Your task to perform on an android device: View the shopping cart on ebay. Search for "usb-c to usb-a" on ebay, select the first entry, and add it to the cart. Image 0: 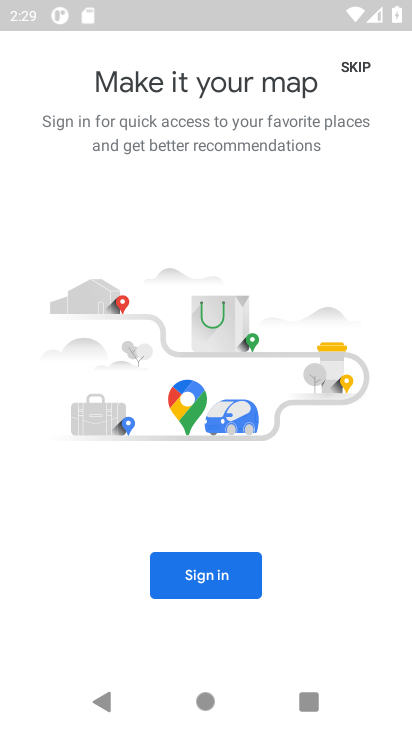
Step 0: press home button
Your task to perform on an android device: View the shopping cart on ebay. Search for "usb-c to usb-a" on ebay, select the first entry, and add it to the cart. Image 1: 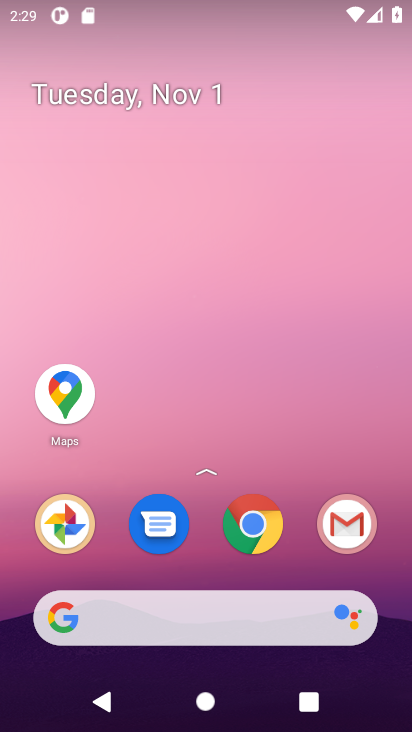
Step 1: click (253, 525)
Your task to perform on an android device: View the shopping cart on ebay. Search for "usb-c to usb-a" on ebay, select the first entry, and add it to the cart. Image 2: 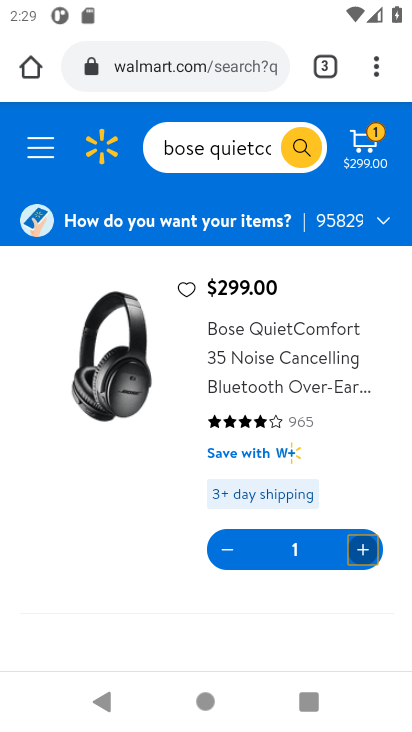
Step 2: click (182, 42)
Your task to perform on an android device: View the shopping cart on ebay. Search for "usb-c to usb-a" on ebay, select the first entry, and add it to the cart. Image 3: 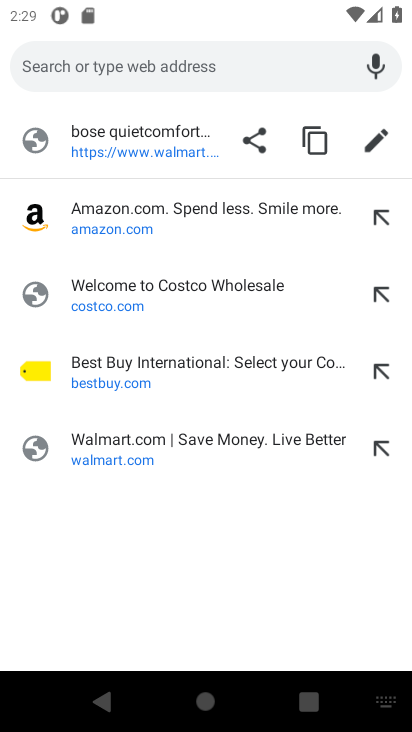
Step 3: type "ebay"
Your task to perform on an android device: View the shopping cart on ebay. Search for "usb-c to usb-a" on ebay, select the first entry, and add it to the cart. Image 4: 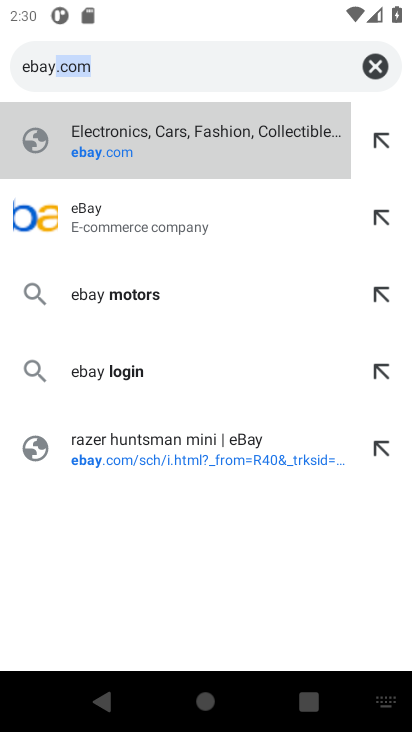
Step 4: click (95, 216)
Your task to perform on an android device: View the shopping cart on ebay. Search for "usb-c to usb-a" on ebay, select the first entry, and add it to the cart. Image 5: 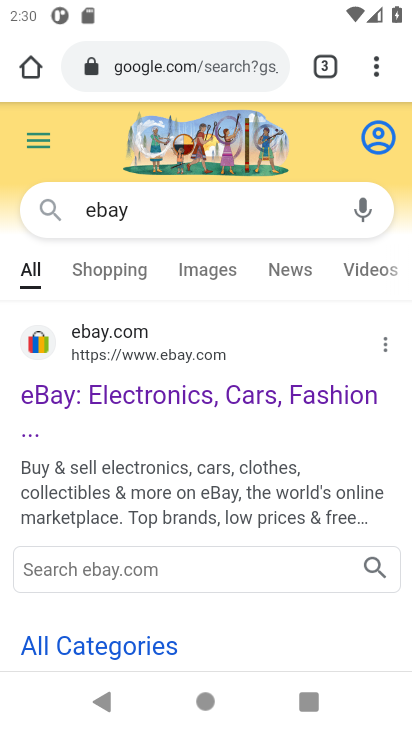
Step 5: click (37, 391)
Your task to perform on an android device: View the shopping cart on ebay. Search for "usb-c to usb-a" on ebay, select the first entry, and add it to the cart. Image 6: 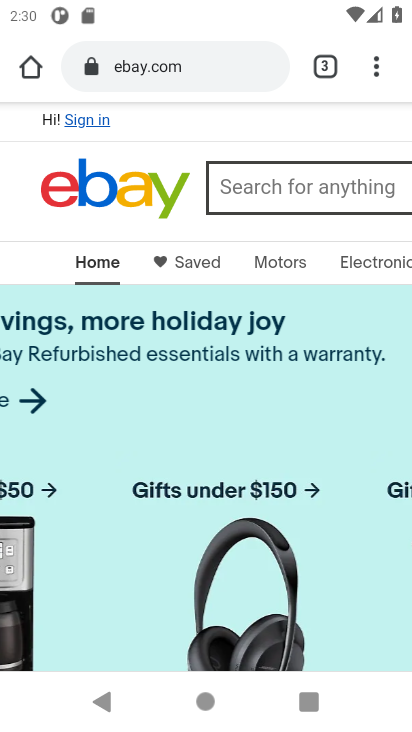
Step 6: drag from (398, 232) to (64, 221)
Your task to perform on an android device: View the shopping cart on ebay. Search for "usb-c to usb-a" on ebay, select the first entry, and add it to the cart. Image 7: 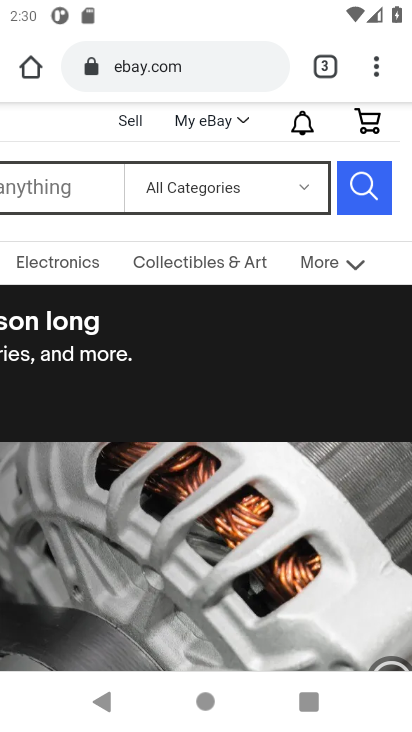
Step 7: drag from (397, 230) to (291, 225)
Your task to perform on an android device: View the shopping cart on ebay. Search for "usb-c to usb-a" on ebay, select the first entry, and add it to the cart. Image 8: 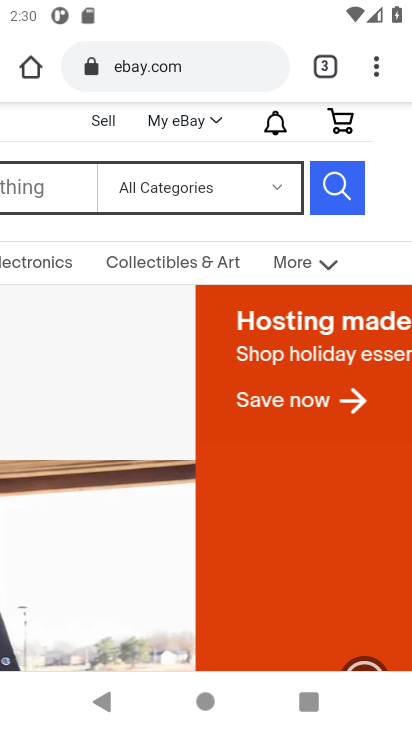
Step 8: click (343, 120)
Your task to perform on an android device: View the shopping cart on ebay. Search for "usb-c to usb-a" on ebay, select the first entry, and add it to the cart. Image 9: 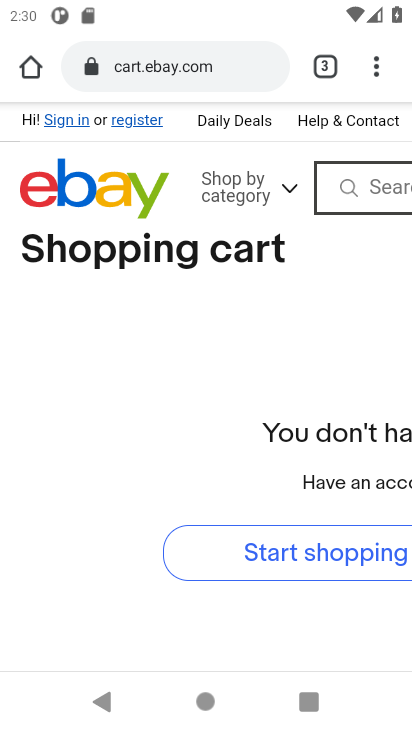
Step 9: drag from (382, 381) to (32, 367)
Your task to perform on an android device: View the shopping cart on ebay. Search for "usb-c to usb-a" on ebay, select the first entry, and add it to the cart. Image 10: 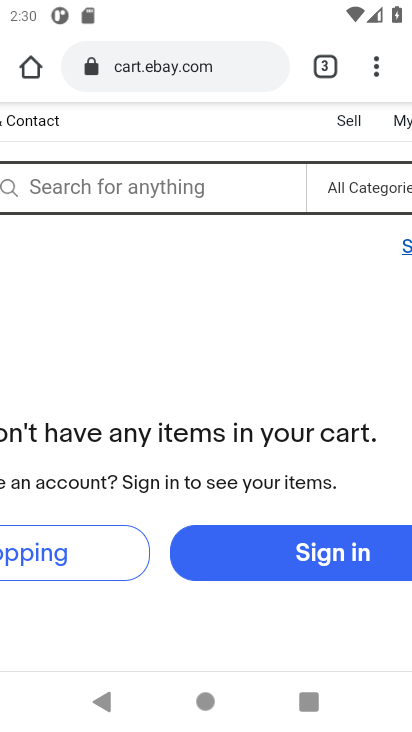
Step 10: click (72, 180)
Your task to perform on an android device: View the shopping cart on ebay. Search for "usb-c to usb-a" on ebay, select the first entry, and add it to the cart. Image 11: 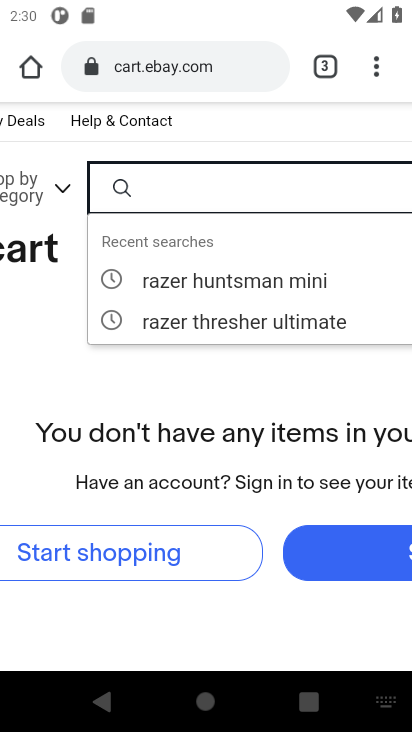
Step 11: type "usb-c to usb-a"
Your task to perform on an android device: View the shopping cart on ebay. Search for "usb-c to usb-a" on ebay, select the first entry, and add it to the cart. Image 12: 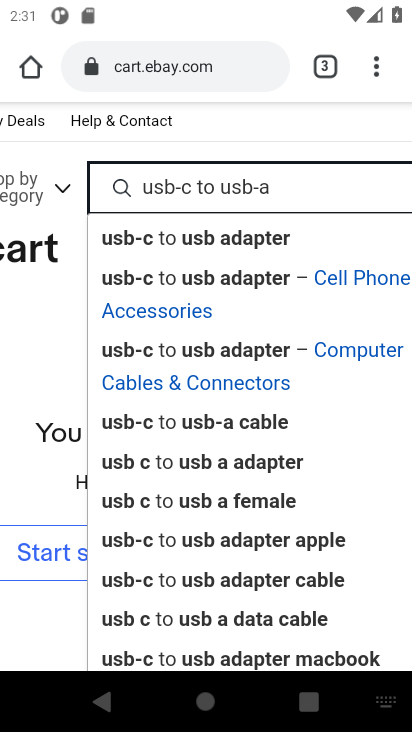
Step 12: click (150, 233)
Your task to perform on an android device: View the shopping cart on ebay. Search for "usb-c to usb-a" on ebay, select the first entry, and add it to the cart. Image 13: 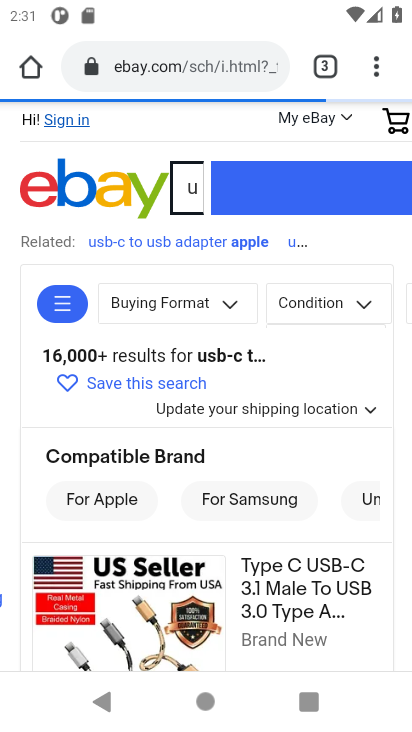
Step 13: drag from (279, 552) to (261, 295)
Your task to perform on an android device: View the shopping cart on ebay. Search for "usb-c to usb-a" on ebay, select the first entry, and add it to the cart. Image 14: 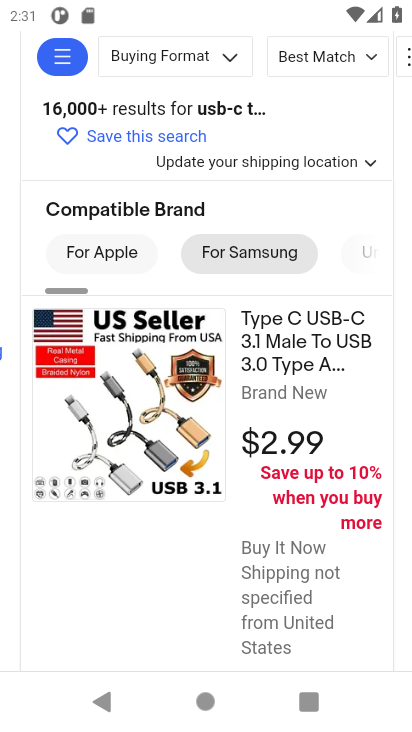
Step 14: drag from (251, 556) to (245, 327)
Your task to perform on an android device: View the shopping cart on ebay. Search for "usb-c to usb-a" on ebay, select the first entry, and add it to the cart. Image 15: 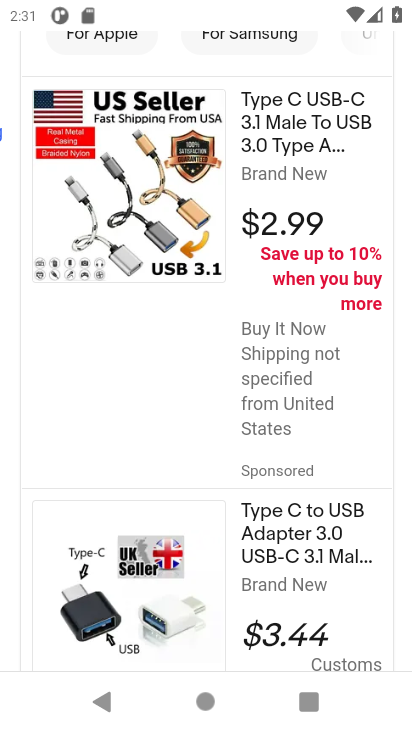
Step 15: drag from (242, 610) to (228, 324)
Your task to perform on an android device: View the shopping cart on ebay. Search for "usb-c to usb-a" on ebay, select the first entry, and add it to the cart. Image 16: 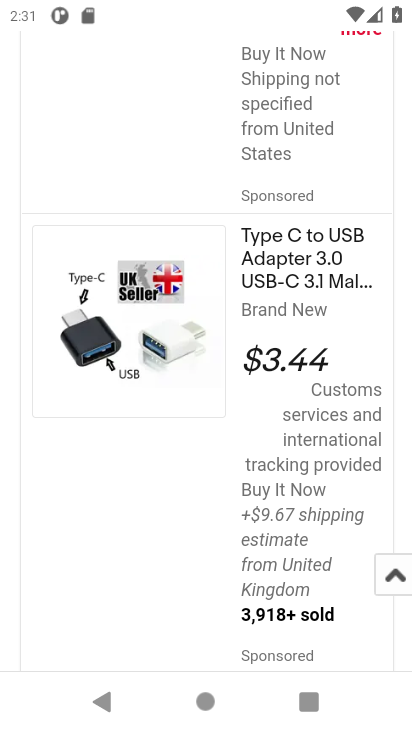
Step 16: drag from (248, 546) to (217, 218)
Your task to perform on an android device: View the shopping cart on ebay. Search for "usb-c to usb-a" on ebay, select the first entry, and add it to the cart. Image 17: 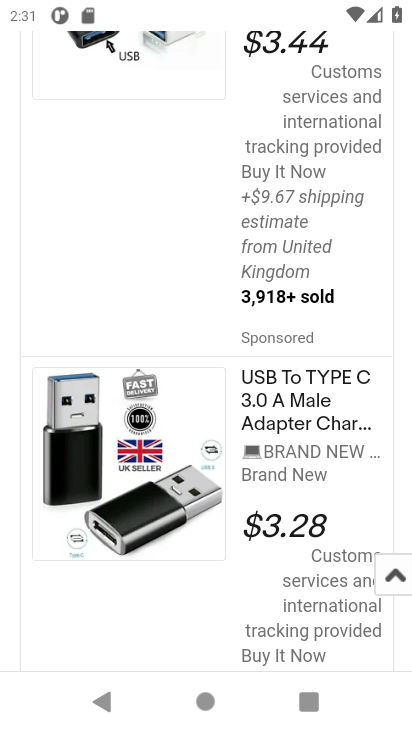
Step 17: drag from (237, 592) to (208, 293)
Your task to perform on an android device: View the shopping cart on ebay. Search for "usb-c to usb-a" on ebay, select the first entry, and add it to the cart. Image 18: 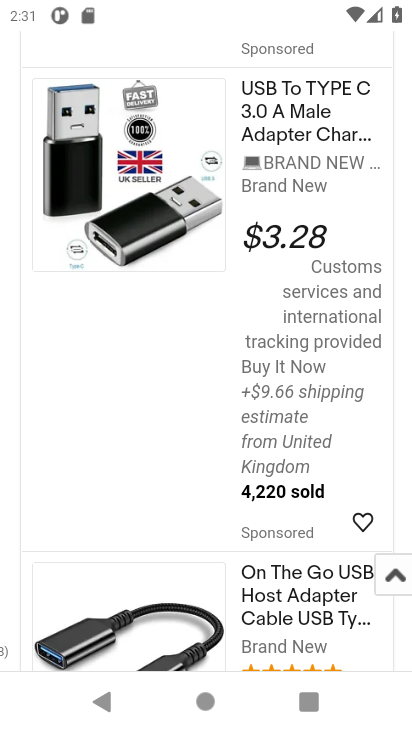
Step 18: drag from (208, 298) to (208, 555)
Your task to perform on an android device: View the shopping cart on ebay. Search for "usb-c to usb-a" on ebay, select the first entry, and add it to the cart. Image 19: 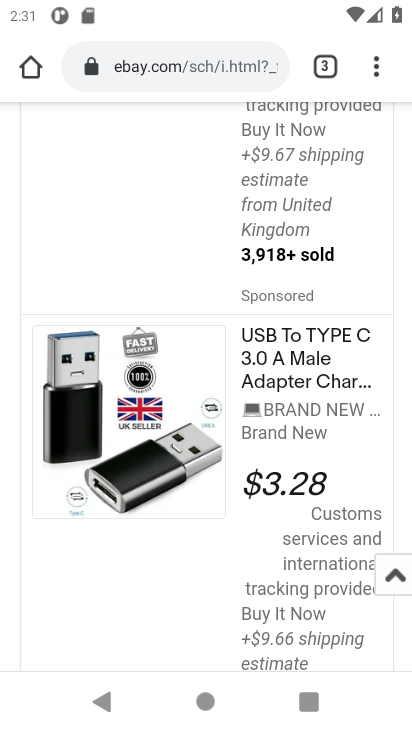
Step 19: drag from (213, 221) to (247, 666)
Your task to perform on an android device: View the shopping cart on ebay. Search for "usb-c to usb-a" on ebay, select the first entry, and add it to the cart. Image 20: 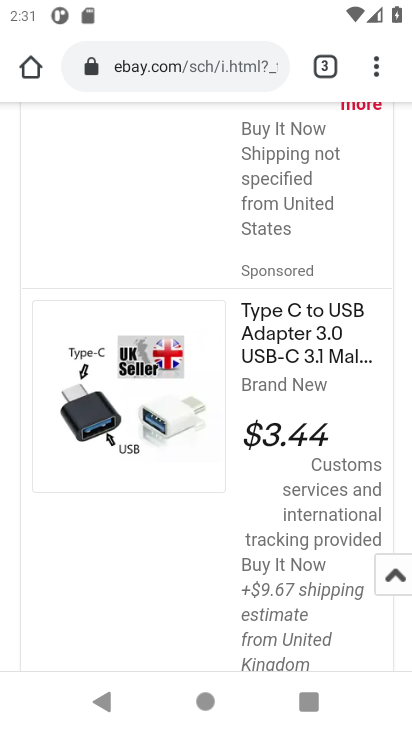
Step 20: drag from (243, 153) to (269, 553)
Your task to perform on an android device: View the shopping cart on ebay. Search for "usb-c to usb-a" on ebay, select the first entry, and add it to the cart. Image 21: 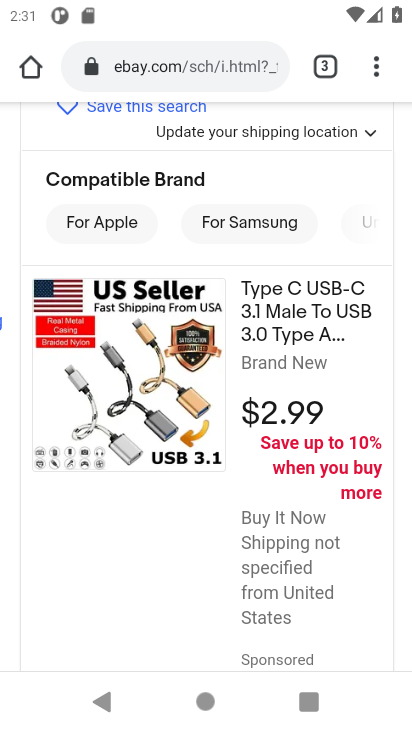
Step 21: click (281, 298)
Your task to perform on an android device: View the shopping cart on ebay. Search for "usb-c to usb-a" on ebay, select the first entry, and add it to the cart. Image 22: 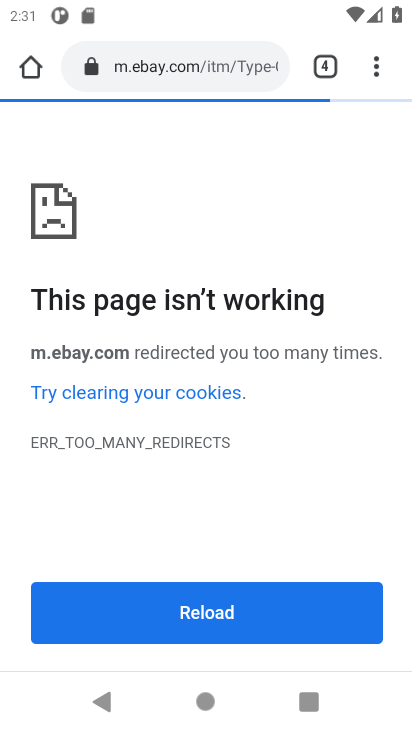
Step 22: task complete